Your task to perform on an android device: find photos in the google photos app Image 0: 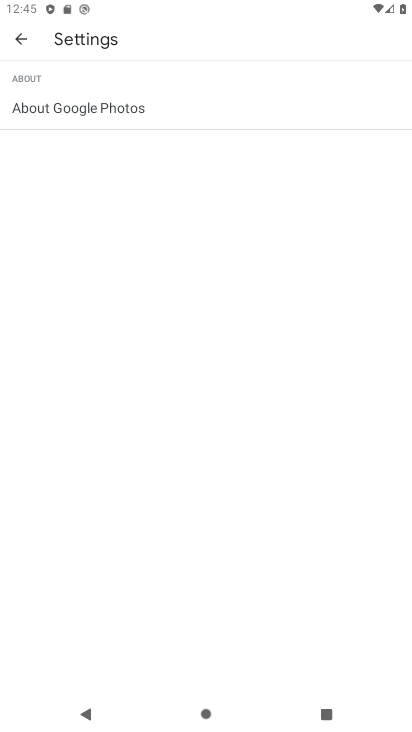
Step 0: press home button
Your task to perform on an android device: find photos in the google photos app Image 1: 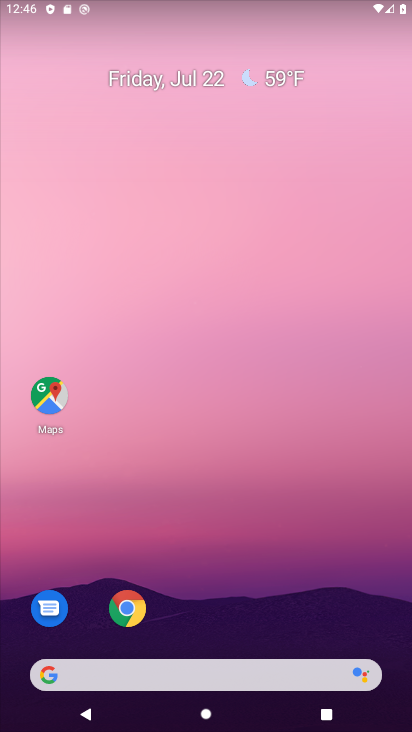
Step 1: drag from (280, 622) to (284, 49)
Your task to perform on an android device: find photos in the google photos app Image 2: 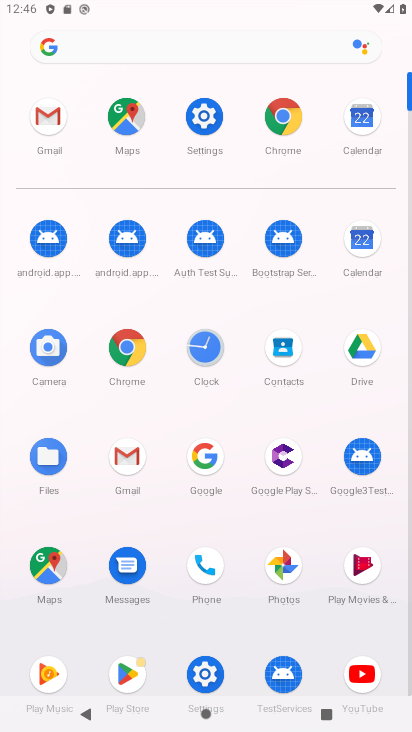
Step 2: click (280, 574)
Your task to perform on an android device: find photos in the google photos app Image 3: 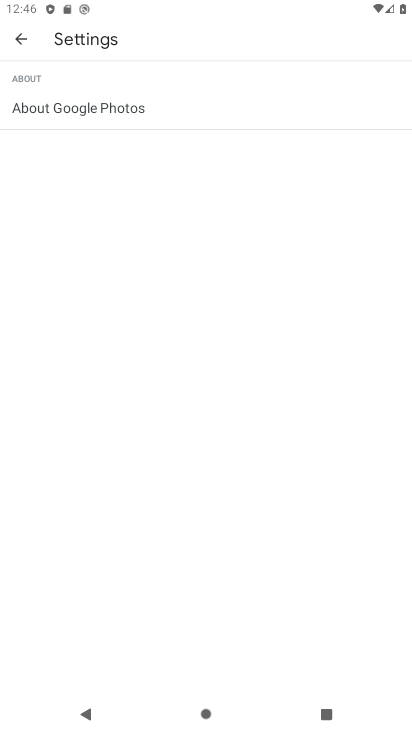
Step 3: click (24, 37)
Your task to perform on an android device: find photos in the google photos app Image 4: 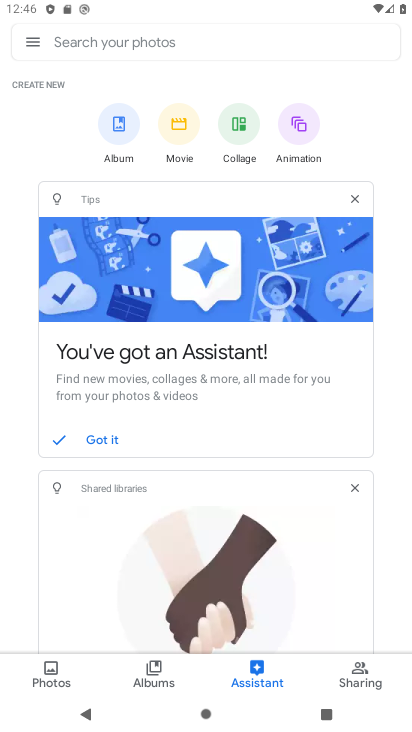
Step 4: click (53, 671)
Your task to perform on an android device: find photos in the google photos app Image 5: 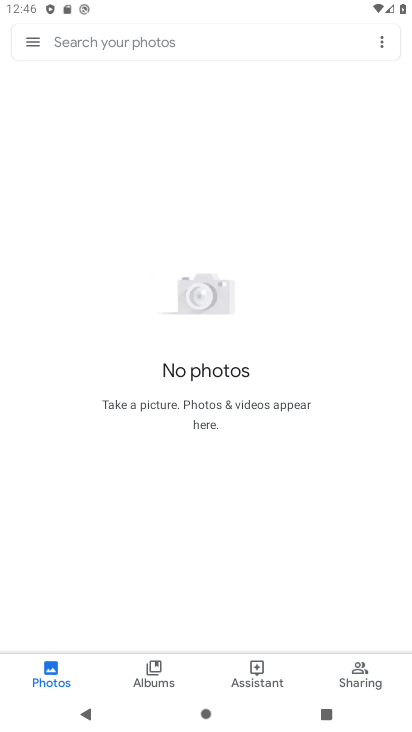
Step 5: task complete